Your task to perform on an android device: turn notification dots on Image 0: 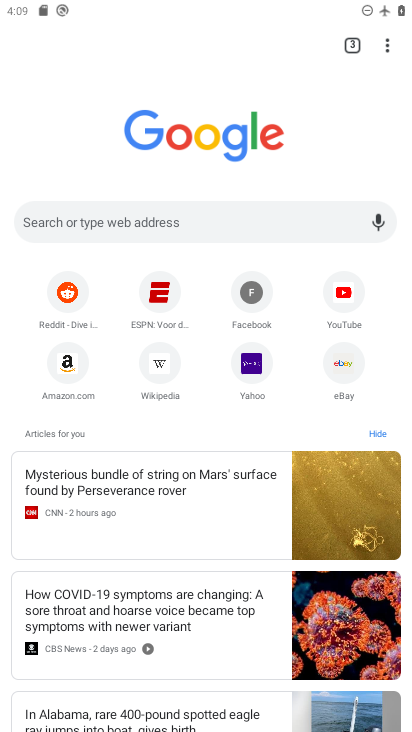
Step 0: press home button
Your task to perform on an android device: turn notification dots on Image 1: 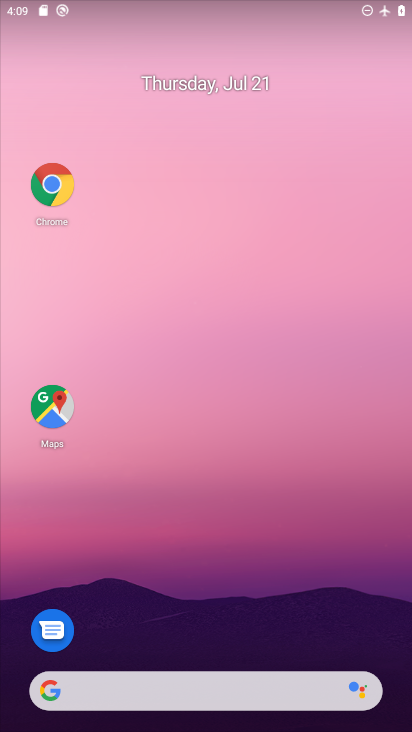
Step 1: drag from (196, 675) to (203, 21)
Your task to perform on an android device: turn notification dots on Image 2: 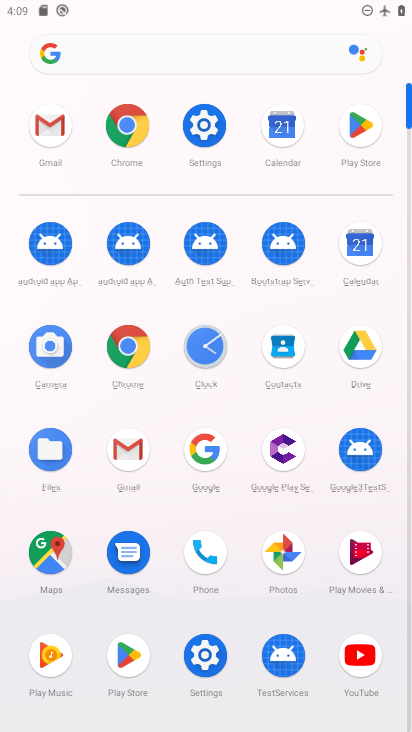
Step 2: click (207, 134)
Your task to perform on an android device: turn notification dots on Image 3: 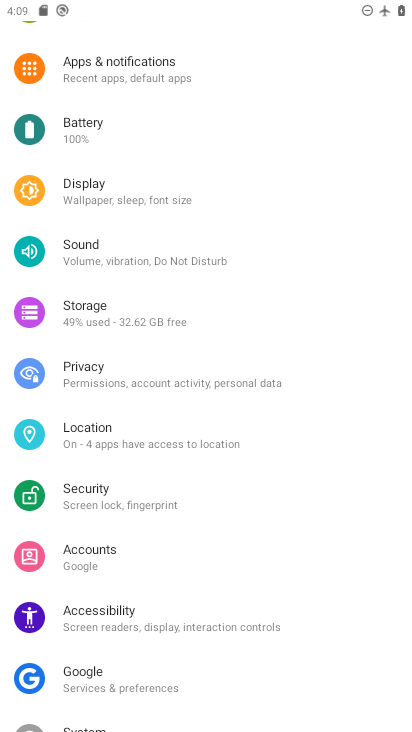
Step 3: click (161, 79)
Your task to perform on an android device: turn notification dots on Image 4: 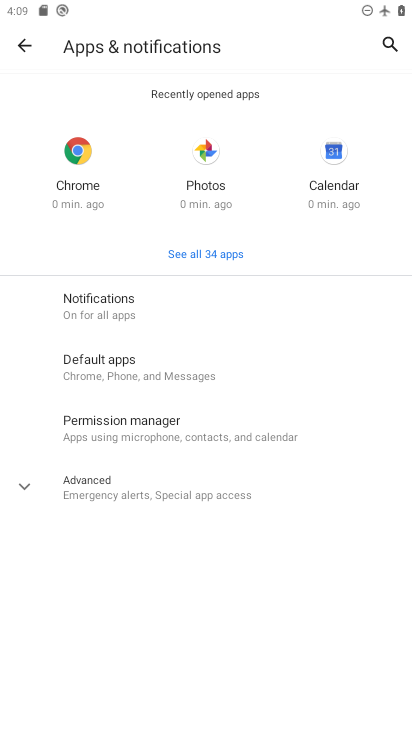
Step 4: click (138, 300)
Your task to perform on an android device: turn notification dots on Image 5: 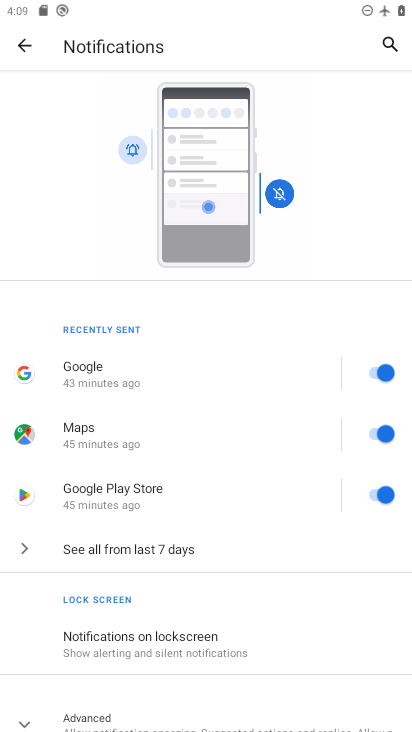
Step 5: drag from (167, 638) to (168, 202)
Your task to perform on an android device: turn notification dots on Image 6: 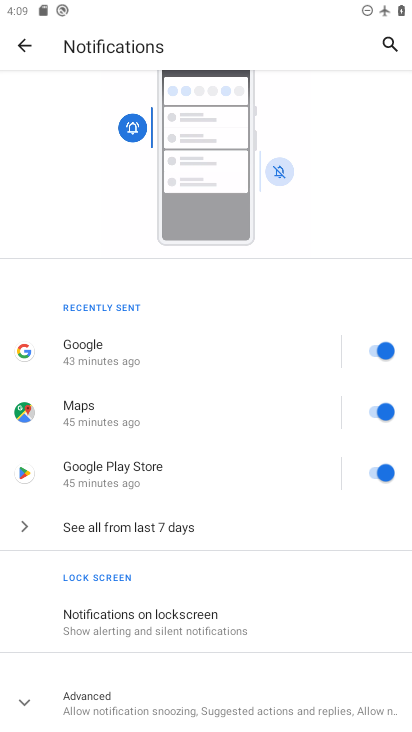
Step 6: click (80, 731)
Your task to perform on an android device: turn notification dots on Image 7: 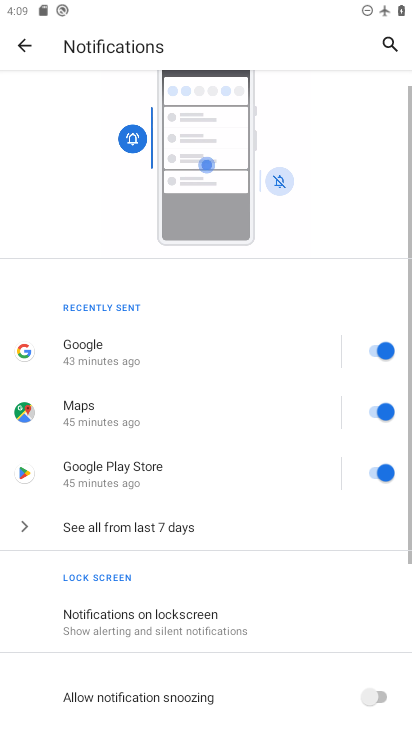
Step 7: task complete